Your task to perform on an android device: stop showing notifications on the lock screen Image 0: 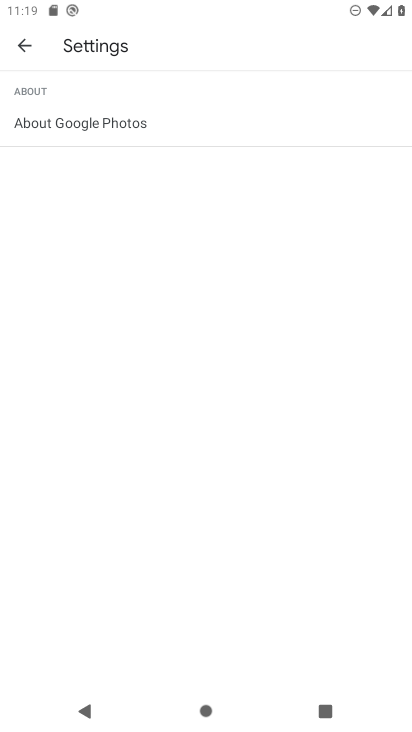
Step 0: press home button
Your task to perform on an android device: stop showing notifications on the lock screen Image 1: 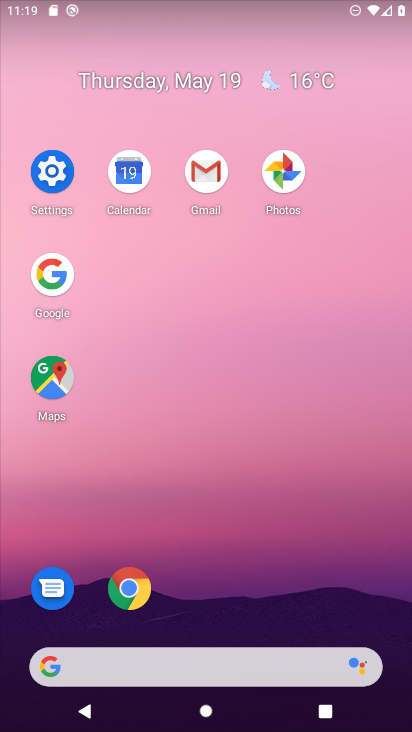
Step 1: click (58, 177)
Your task to perform on an android device: stop showing notifications on the lock screen Image 2: 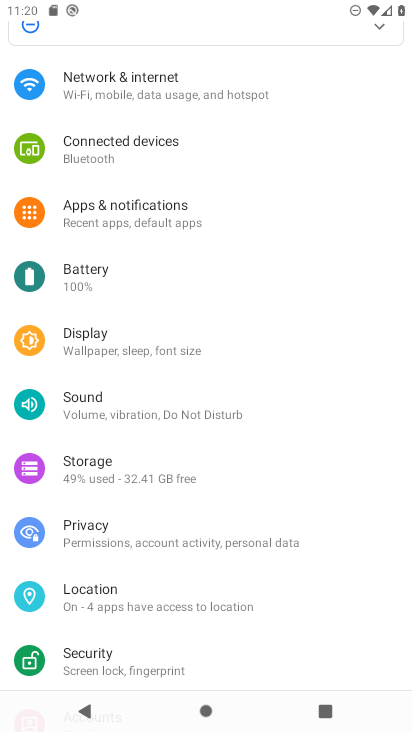
Step 2: click (186, 214)
Your task to perform on an android device: stop showing notifications on the lock screen Image 3: 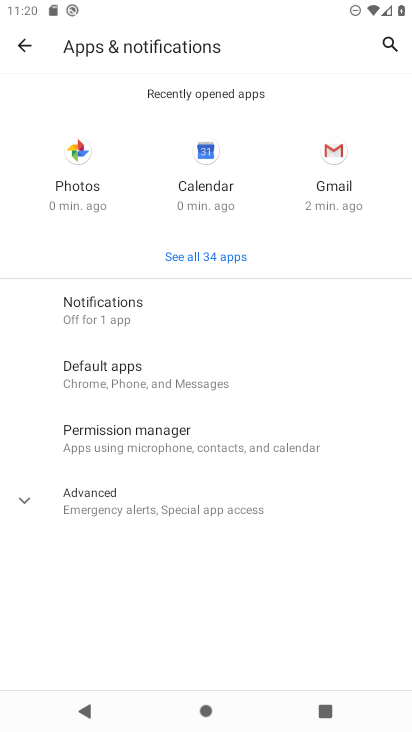
Step 3: click (129, 323)
Your task to perform on an android device: stop showing notifications on the lock screen Image 4: 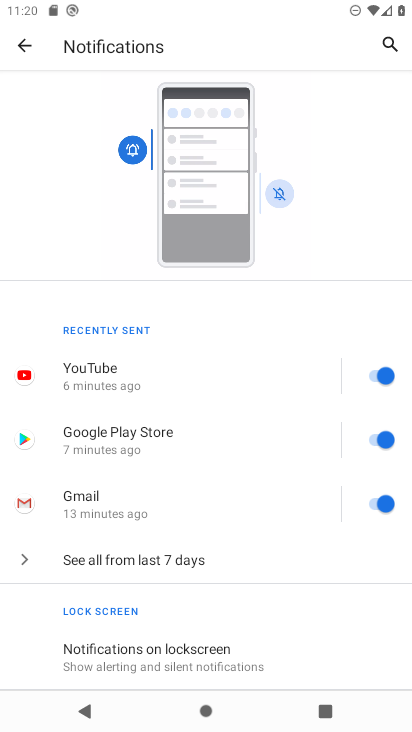
Step 4: click (184, 654)
Your task to perform on an android device: stop showing notifications on the lock screen Image 5: 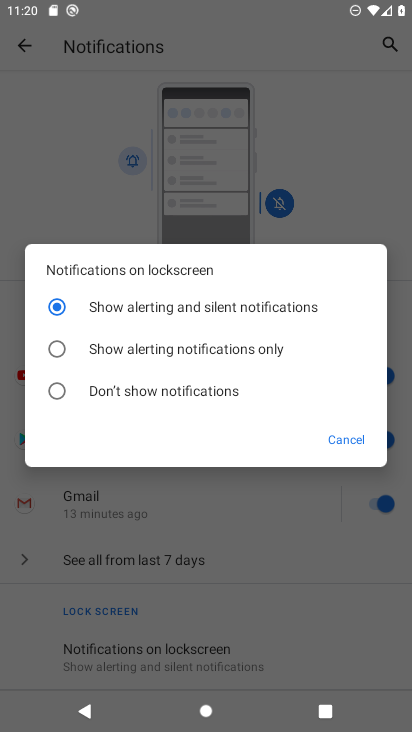
Step 5: click (108, 388)
Your task to perform on an android device: stop showing notifications on the lock screen Image 6: 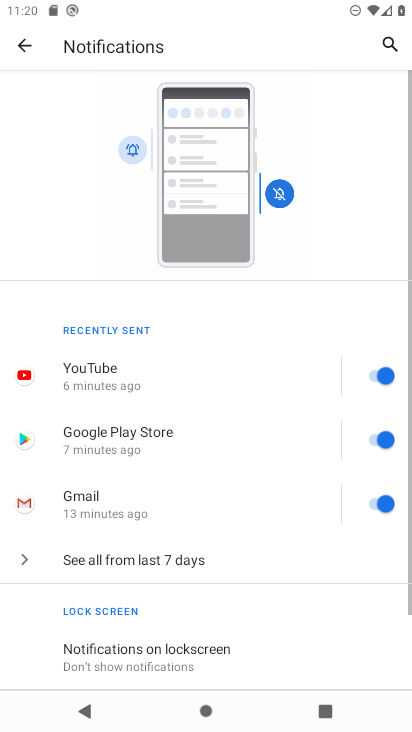
Step 6: task complete